Your task to perform on an android device: What's the weather going to be tomorrow? Image 0: 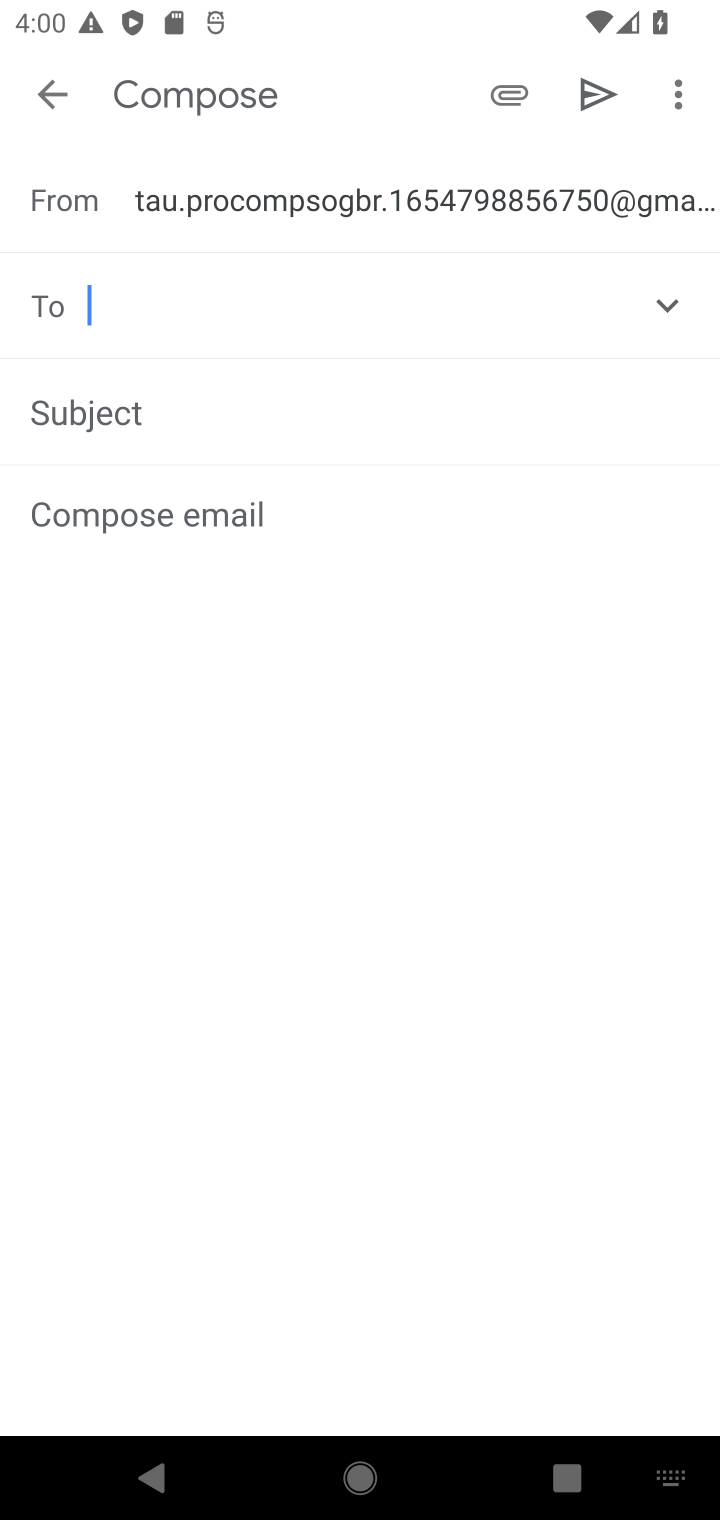
Step 0: press home button
Your task to perform on an android device: What's the weather going to be tomorrow? Image 1: 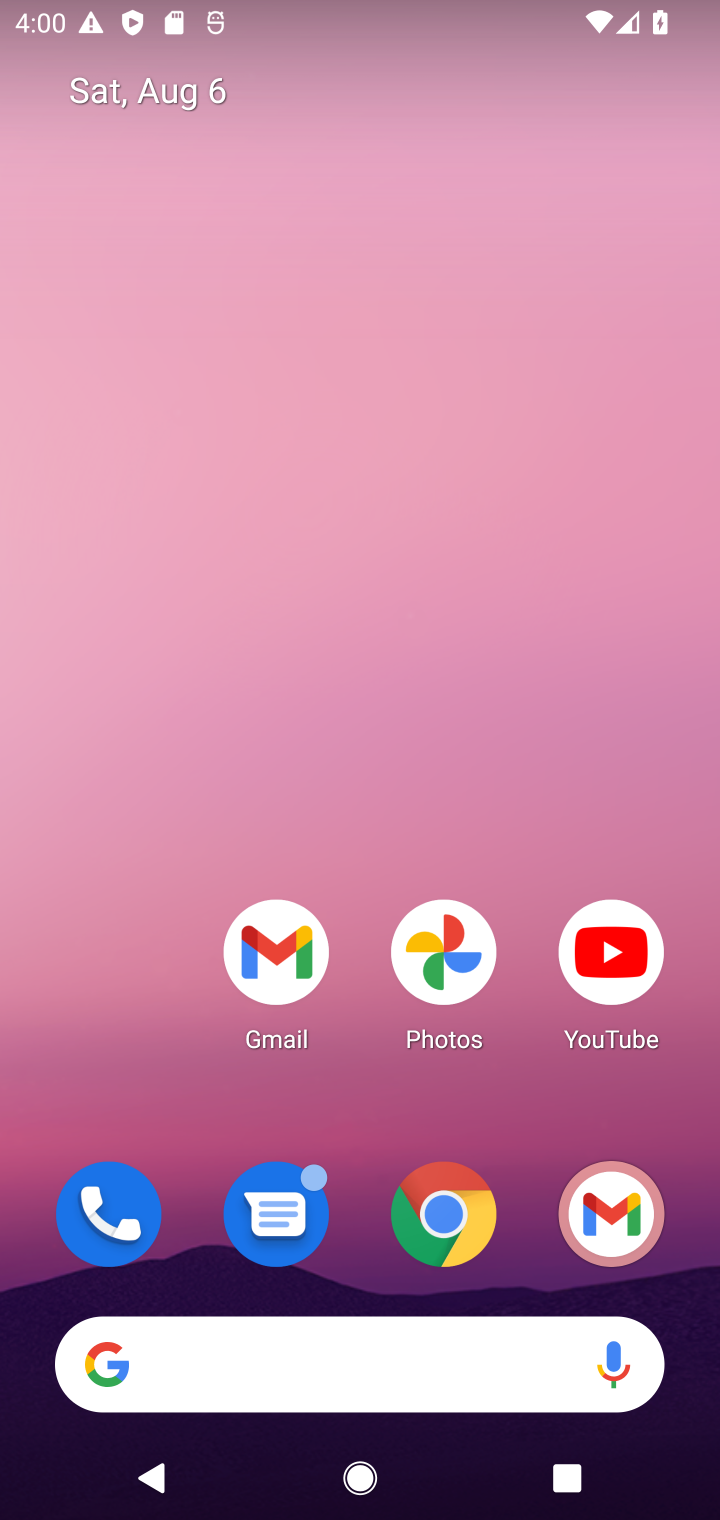
Step 1: click (288, 1359)
Your task to perform on an android device: What's the weather going to be tomorrow? Image 2: 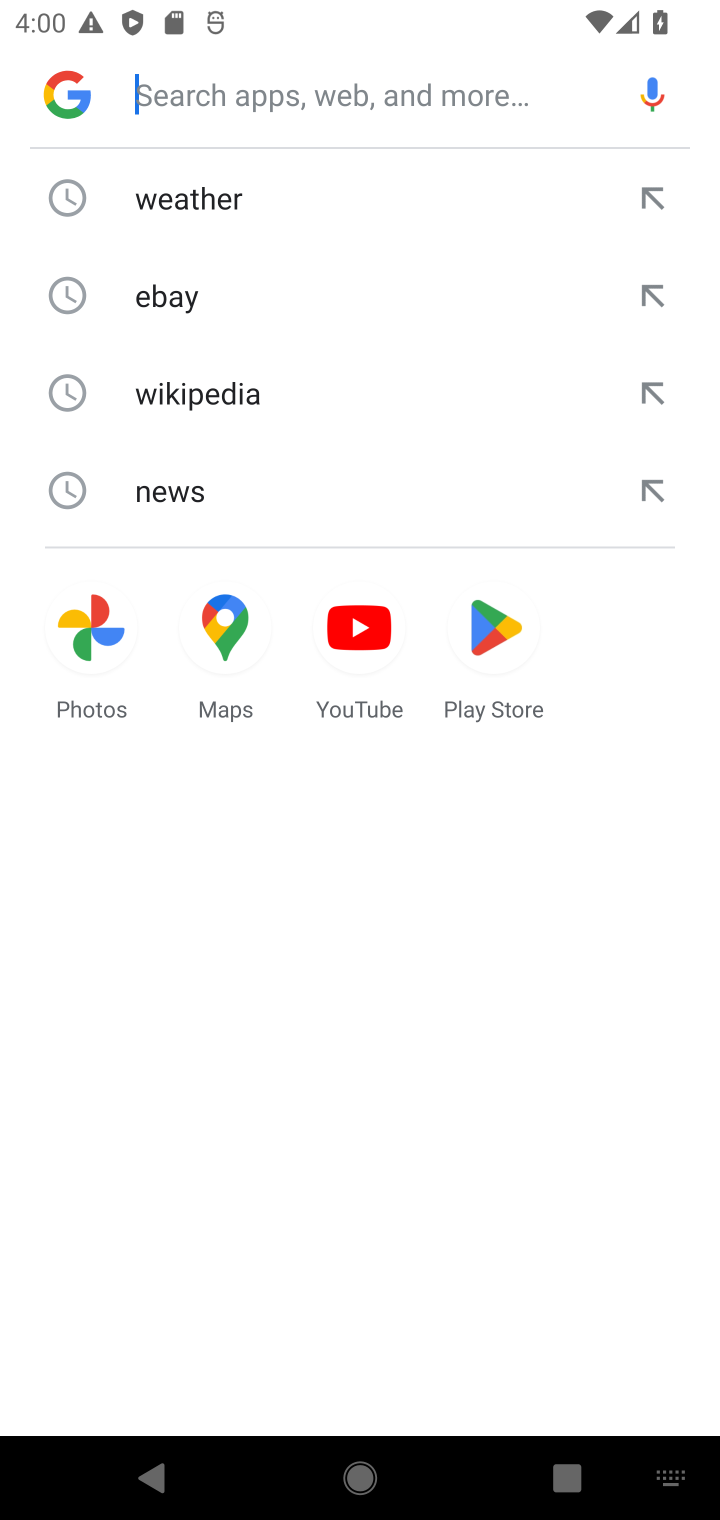
Step 2: click (179, 218)
Your task to perform on an android device: What's the weather going to be tomorrow? Image 3: 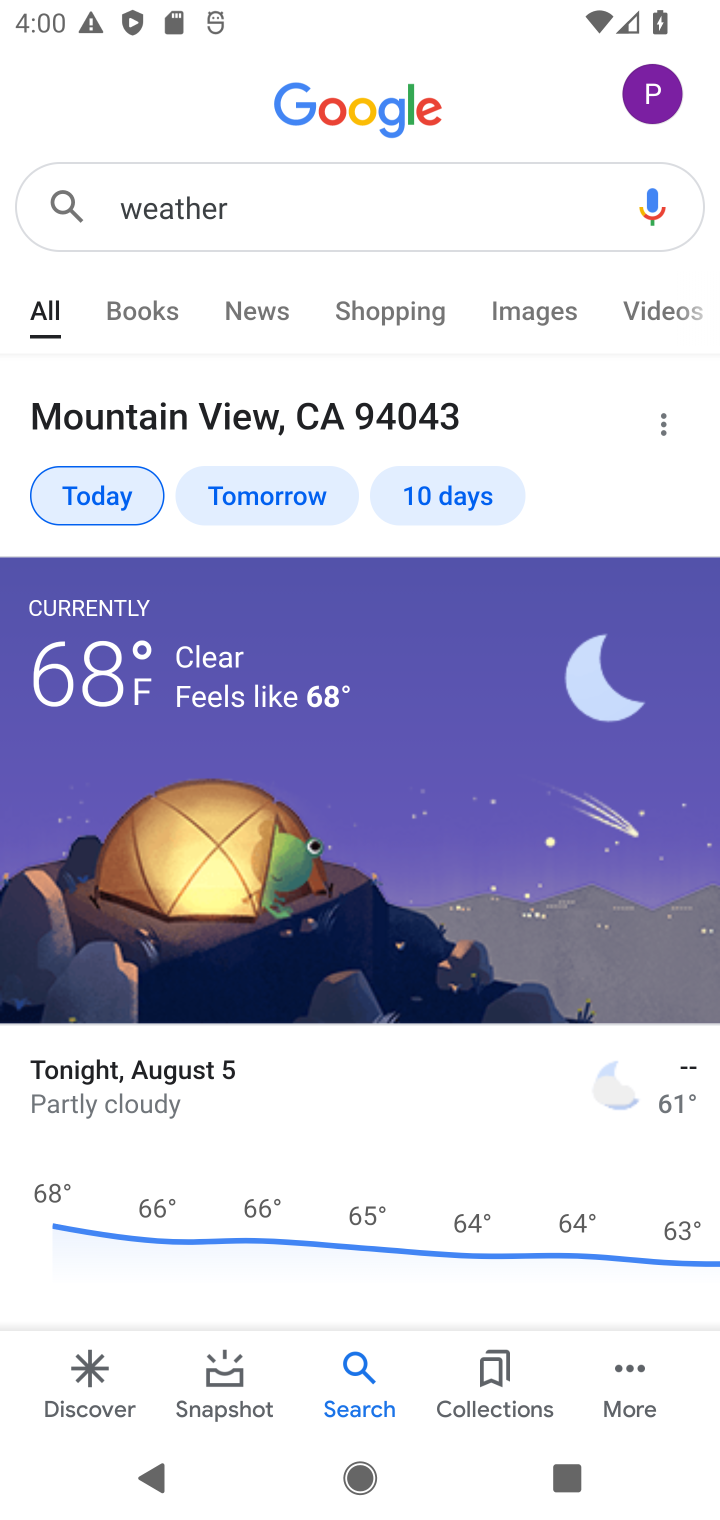
Step 3: click (228, 500)
Your task to perform on an android device: What's the weather going to be tomorrow? Image 4: 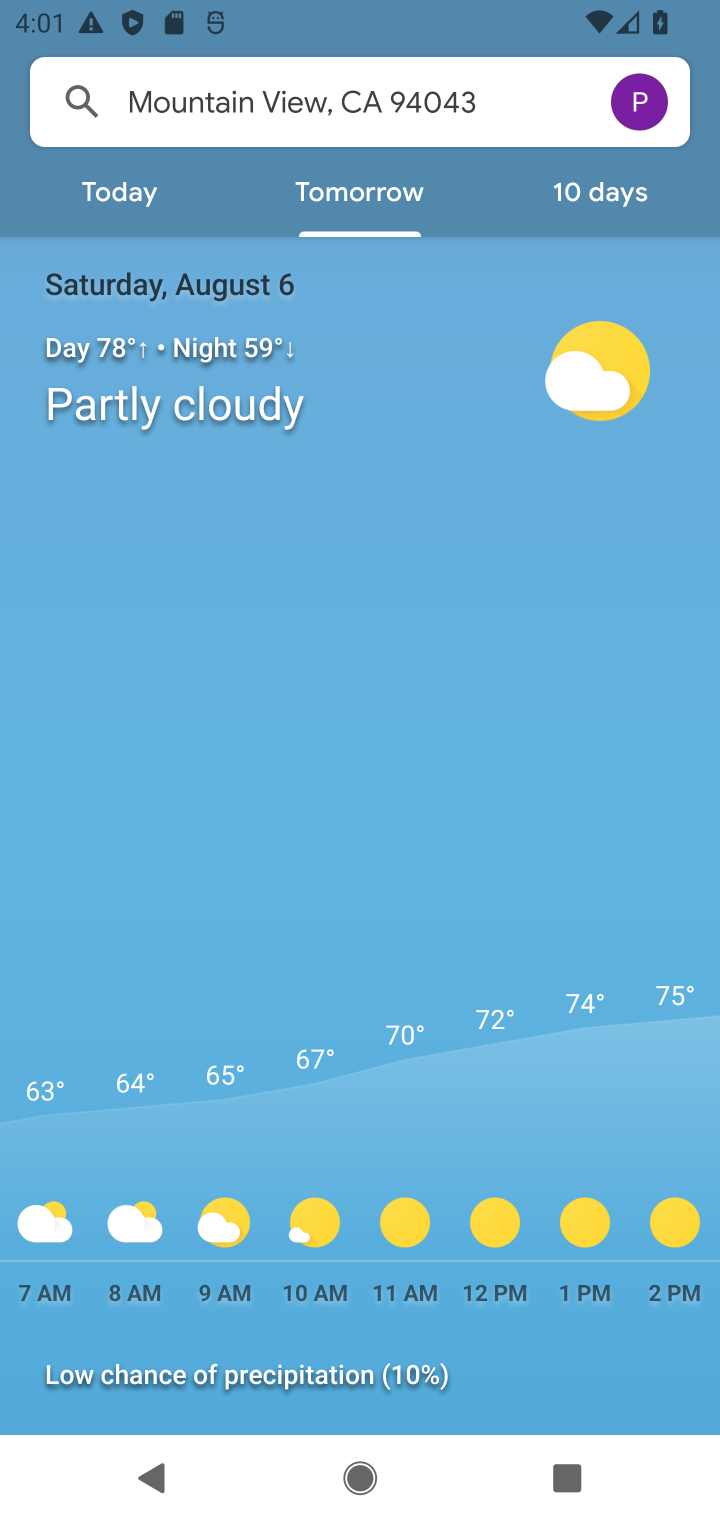
Step 4: task complete